Your task to perform on an android device: add a contact in the contacts app Image 0: 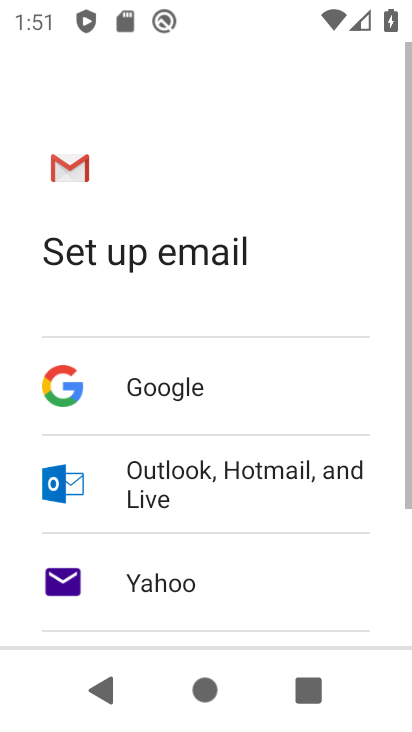
Step 0: press home button
Your task to perform on an android device: add a contact in the contacts app Image 1: 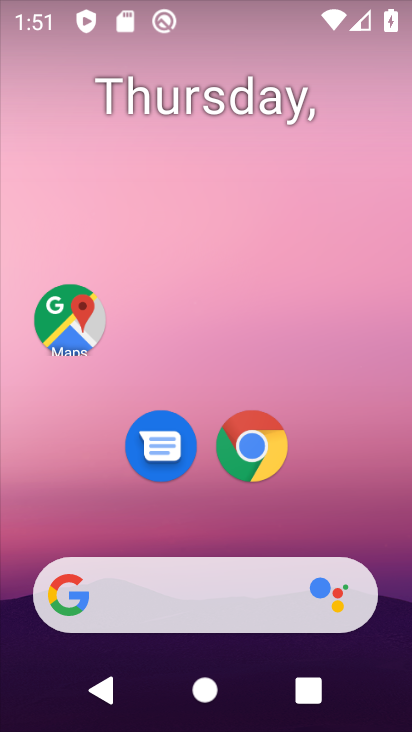
Step 1: drag from (333, 509) to (304, 251)
Your task to perform on an android device: add a contact in the contacts app Image 2: 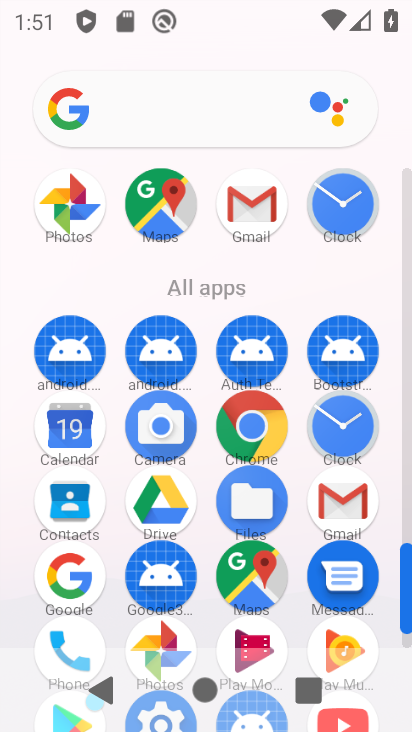
Step 2: drag from (203, 586) to (227, 343)
Your task to perform on an android device: add a contact in the contacts app Image 3: 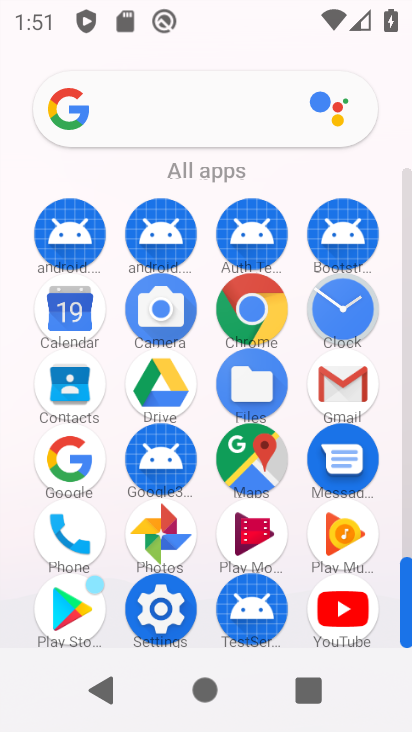
Step 3: click (69, 518)
Your task to perform on an android device: add a contact in the contacts app Image 4: 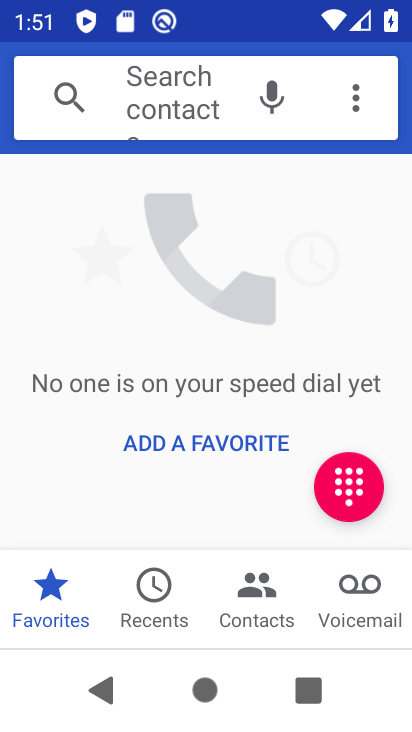
Step 4: click (205, 436)
Your task to perform on an android device: add a contact in the contacts app Image 5: 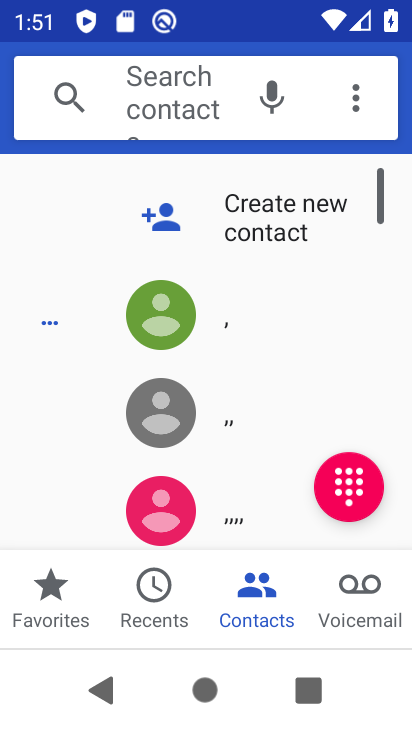
Step 5: click (130, 213)
Your task to perform on an android device: add a contact in the contacts app Image 6: 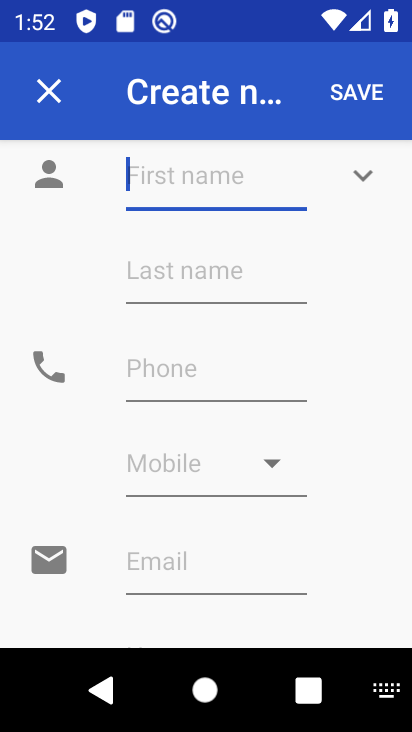
Step 6: click (161, 176)
Your task to perform on an android device: add a contact in the contacts app Image 7: 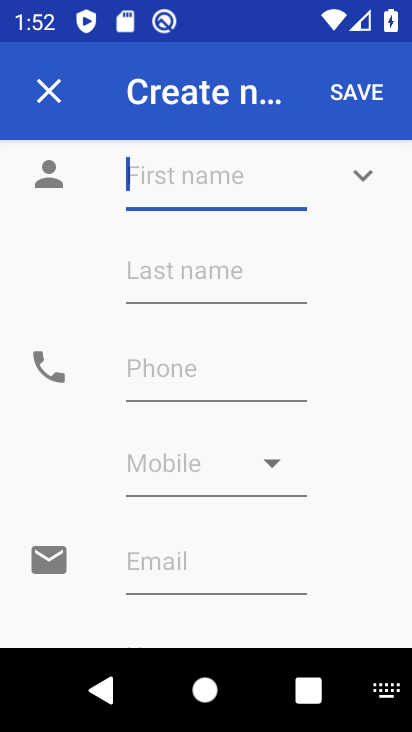
Step 7: type "kkkkkkkkkkkkkkk"
Your task to perform on an android device: add a contact in the contacts app Image 8: 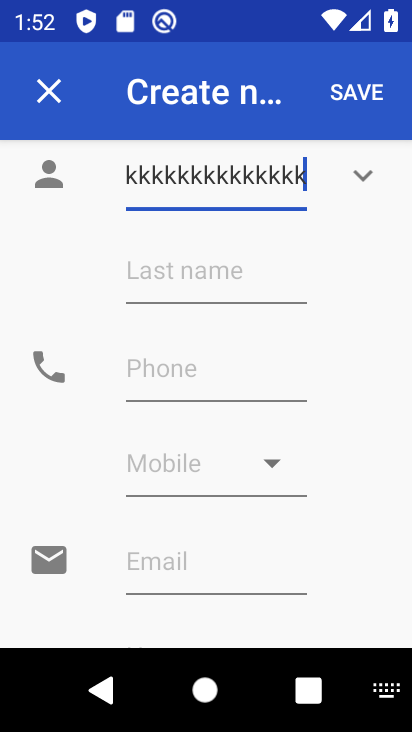
Step 8: click (224, 365)
Your task to perform on an android device: add a contact in the contacts app Image 9: 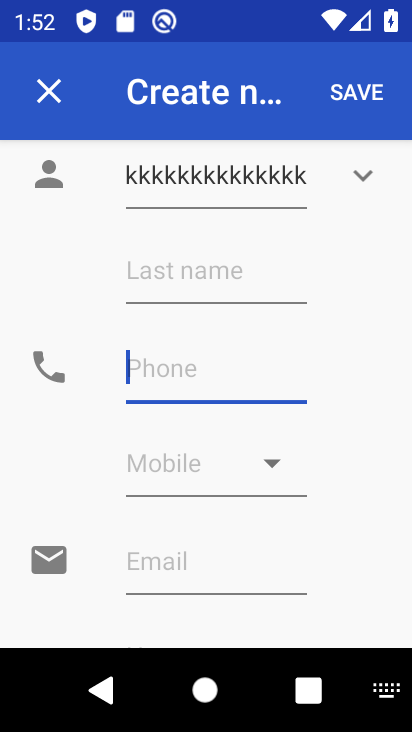
Step 9: type "888888888"
Your task to perform on an android device: add a contact in the contacts app Image 10: 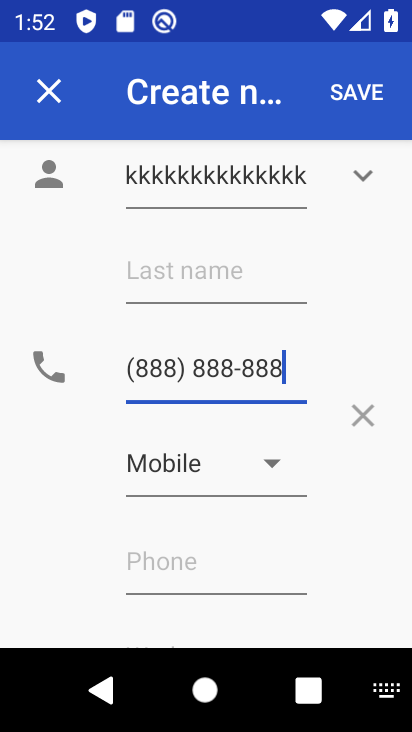
Step 10: click (351, 83)
Your task to perform on an android device: add a contact in the contacts app Image 11: 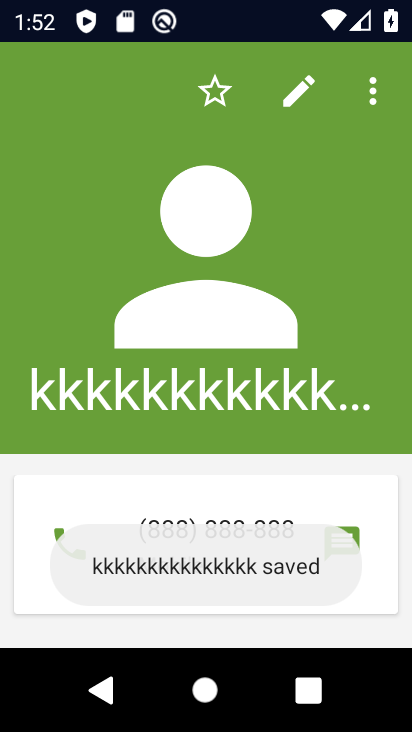
Step 11: task complete